Your task to perform on an android device: Go to internet settings Image 0: 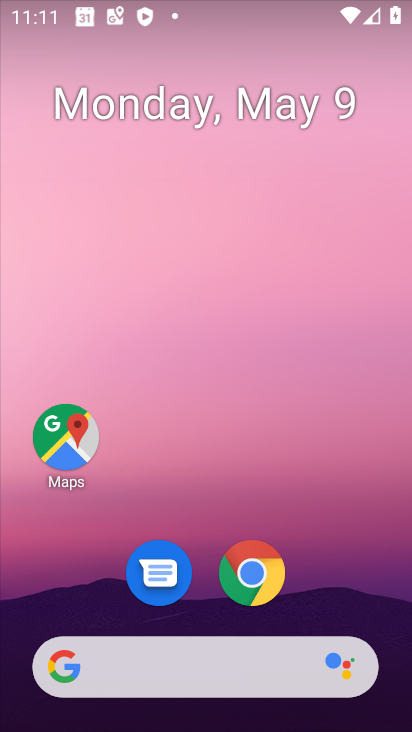
Step 0: drag from (194, 630) to (291, 294)
Your task to perform on an android device: Go to internet settings Image 1: 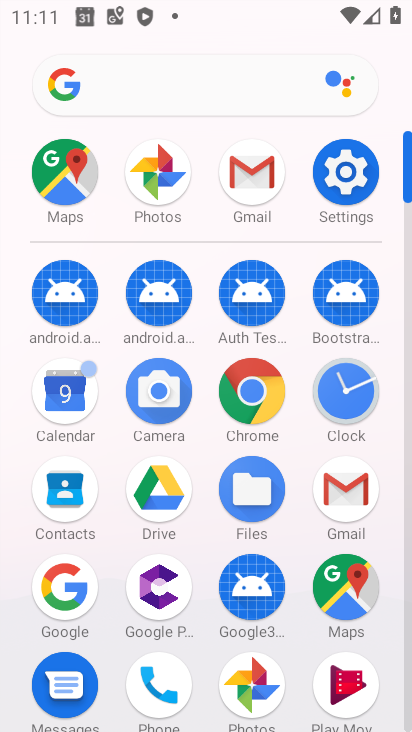
Step 1: click (341, 168)
Your task to perform on an android device: Go to internet settings Image 2: 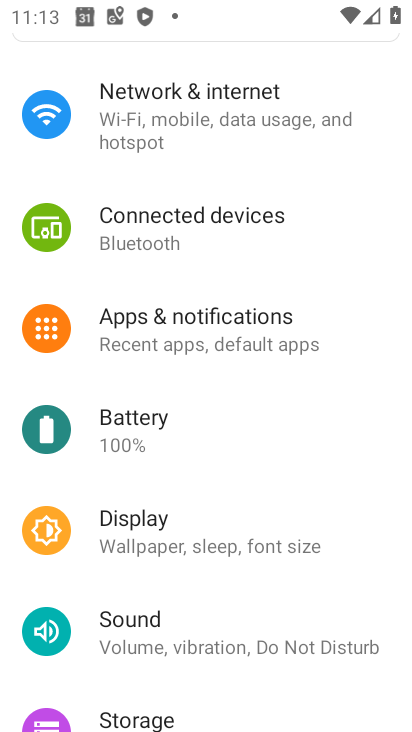
Step 2: click (180, 131)
Your task to perform on an android device: Go to internet settings Image 3: 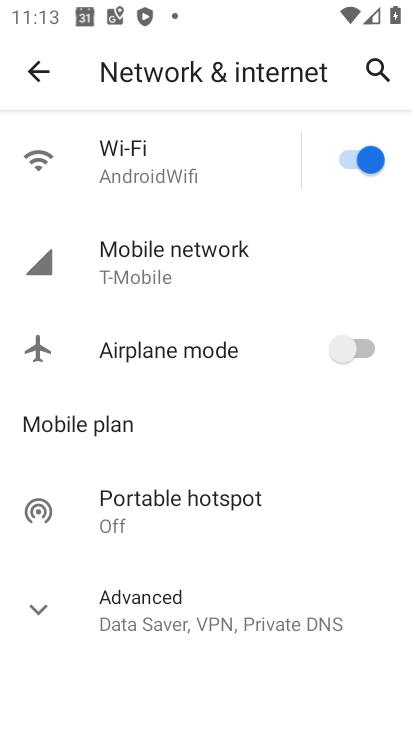
Step 3: click (235, 269)
Your task to perform on an android device: Go to internet settings Image 4: 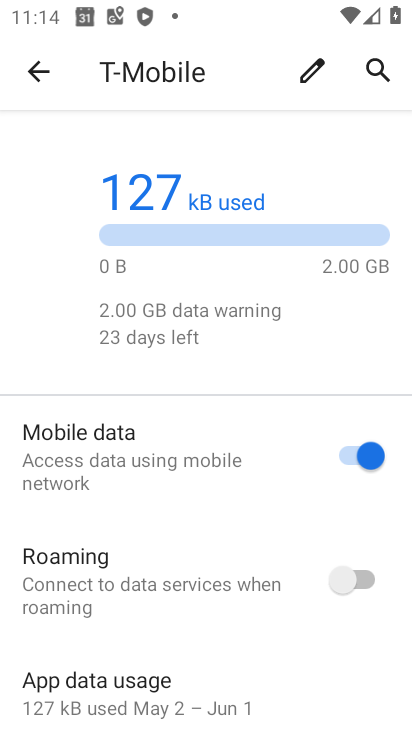
Step 4: task complete